Your task to perform on an android device: How do I get to the nearest Verizon Store? Image 0: 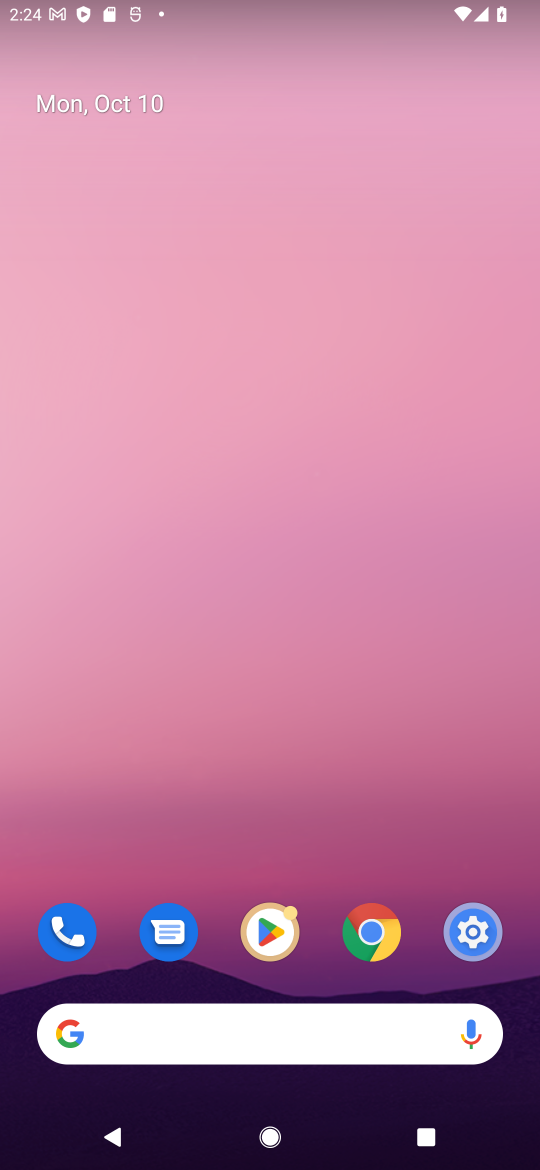
Step 0: click (246, 1045)
Your task to perform on an android device: How do I get to the nearest Verizon Store? Image 1: 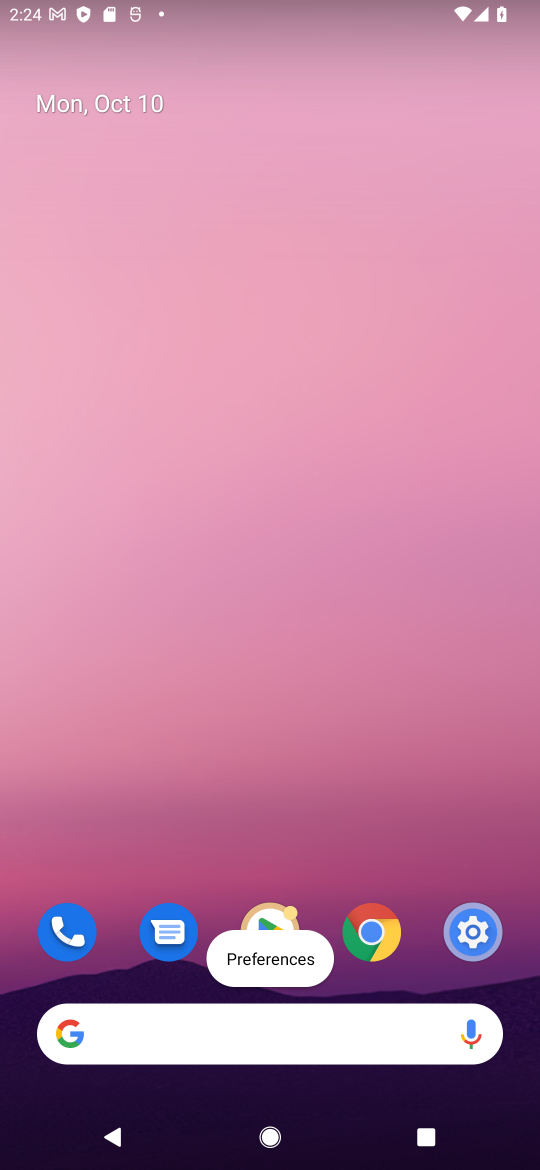
Step 1: click (186, 1015)
Your task to perform on an android device: How do I get to the nearest Verizon Store? Image 2: 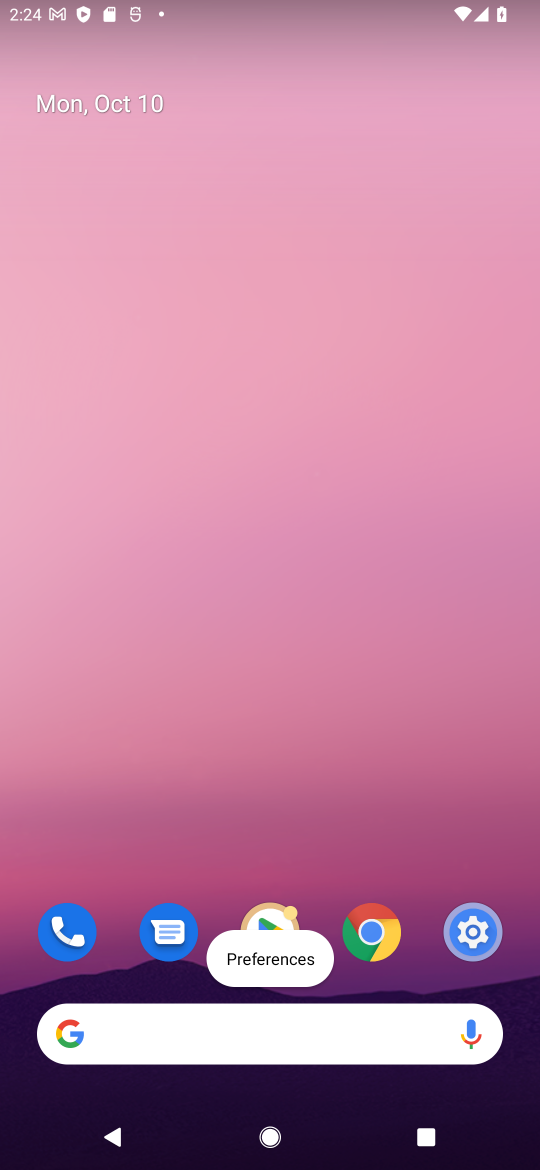
Step 2: drag from (458, 827) to (408, 70)
Your task to perform on an android device: How do I get to the nearest Verizon Store? Image 3: 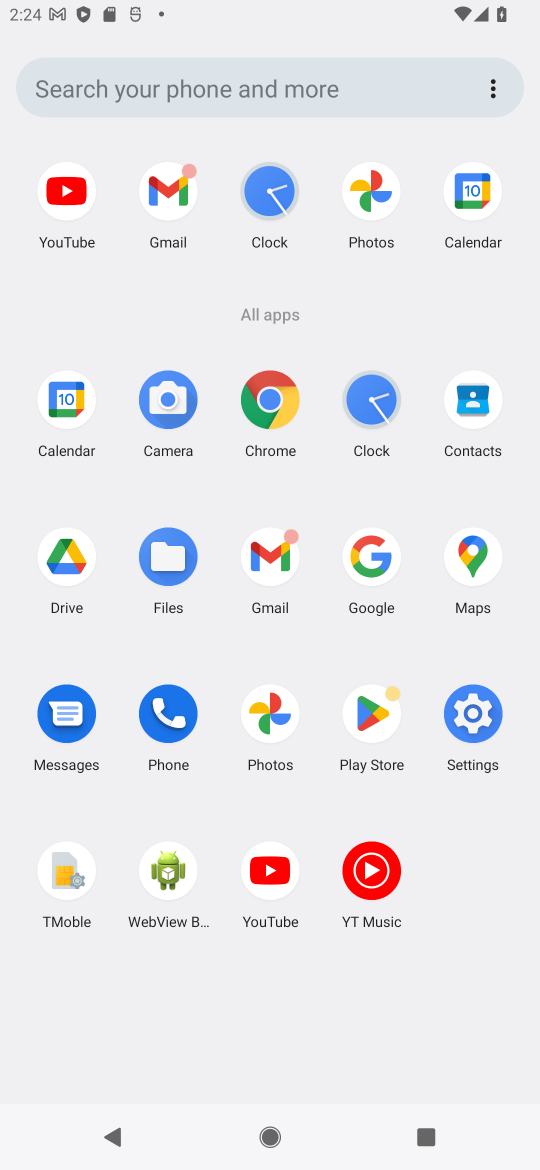
Step 3: click (379, 564)
Your task to perform on an android device: How do I get to the nearest Verizon Store? Image 4: 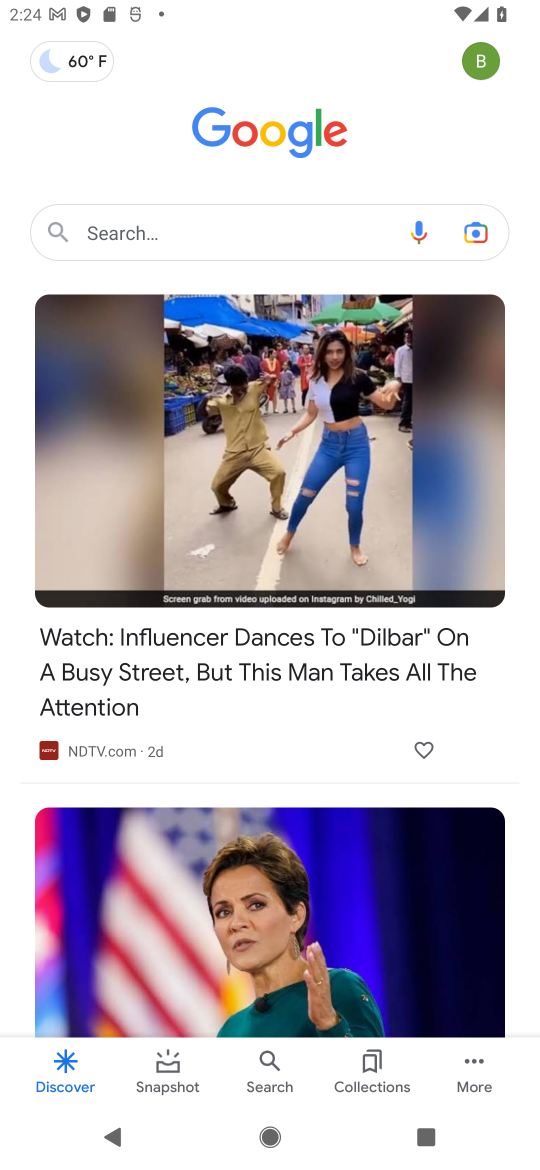
Step 4: click (288, 231)
Your task to perform on an android device: How do I get to the nearest Verizon Store? Image 5: 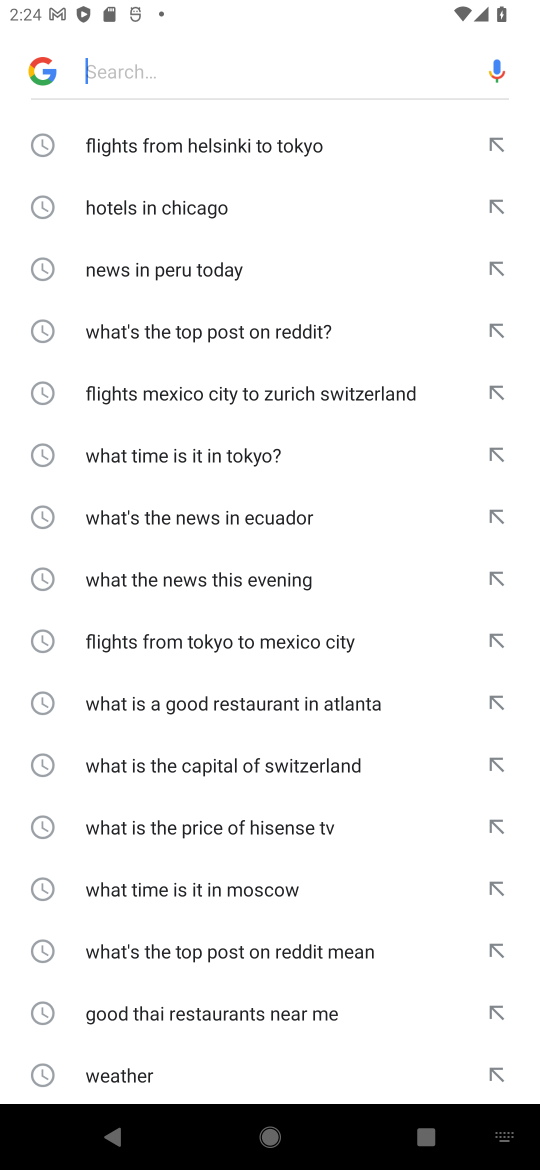
Step 5: press enter
Your task to perform on an android device: How do I get to the nearest Verizon Store? Image 6: 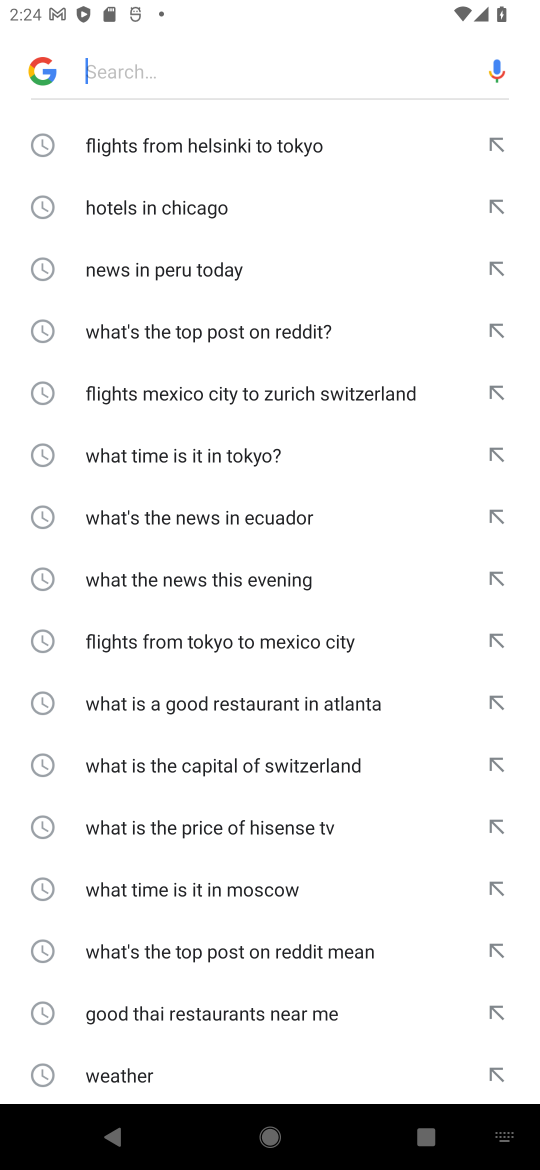
Step 6: type "How do I get to the nearest Verizon Store?"
Your task to perform on an android device: How do I get to the nearest Verizon Store? Image 7: 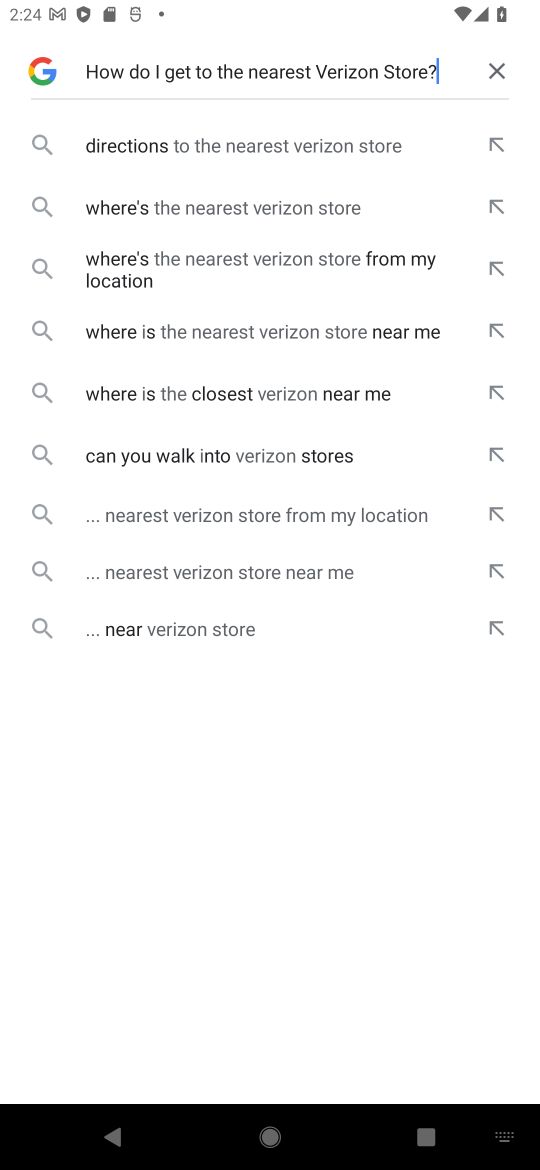
Step 7: press enter
Your task to perform on an android device: How do I get to the nearest Verizon Store? Image 8: 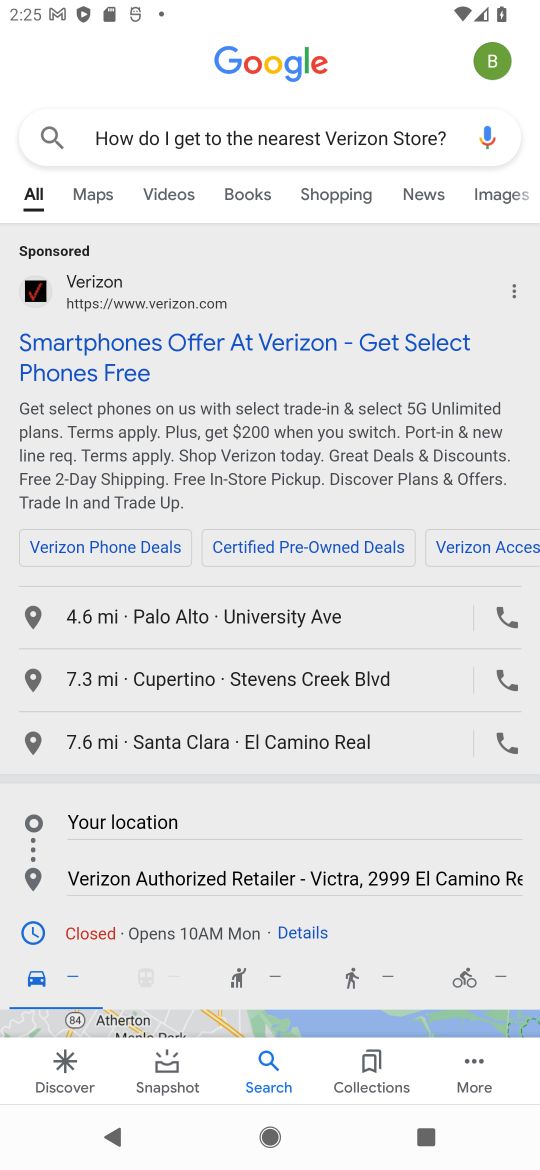
Step 8: task complete